Your task to perform on an android device: Go to eBay Image 0: 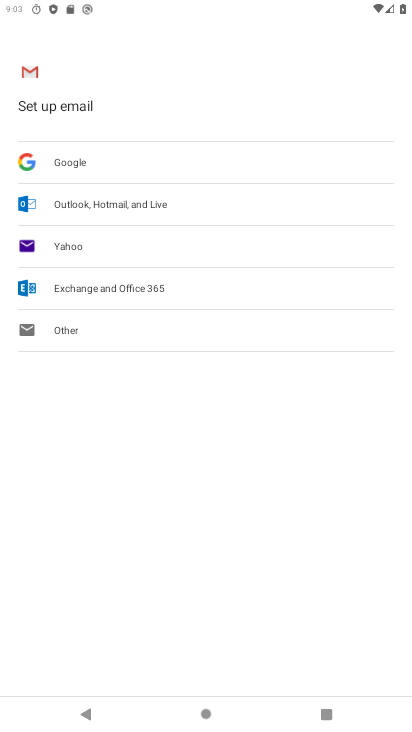
Step 0: press home button
Your task to perform on an android device: Go to eBay Image 1: 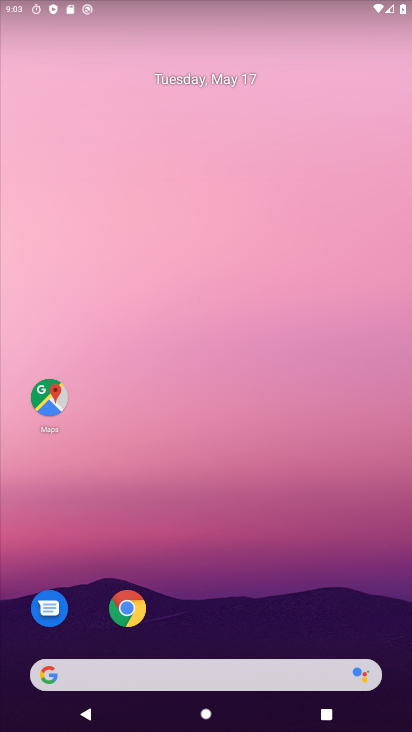
Step 1: drag from (308, 560) to (286, 124)
Your task to perform on an android device: Go to eBay Image 2: 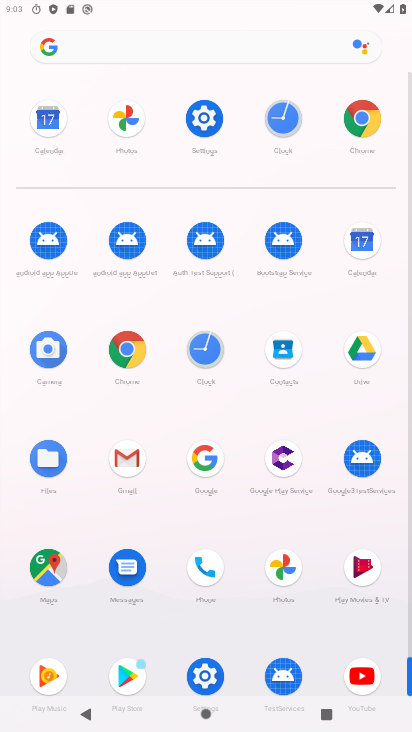
Step 2: click (118, 345)
Your task to perform on an android device: Go to eBay Image 3: 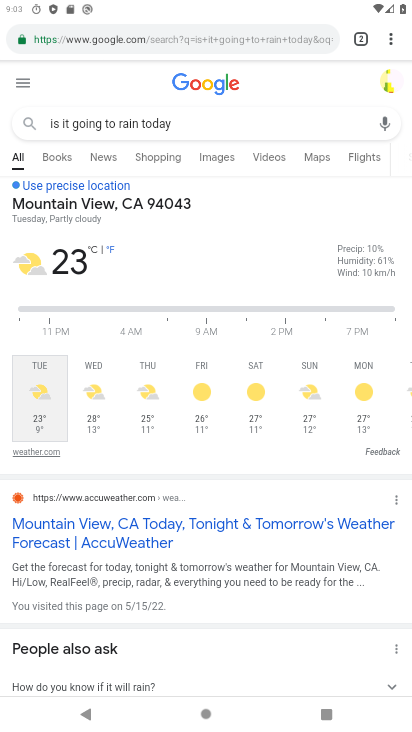
Step 3: click (156, 40)
Your task to perform on an android device: Go to eBay Image 4: 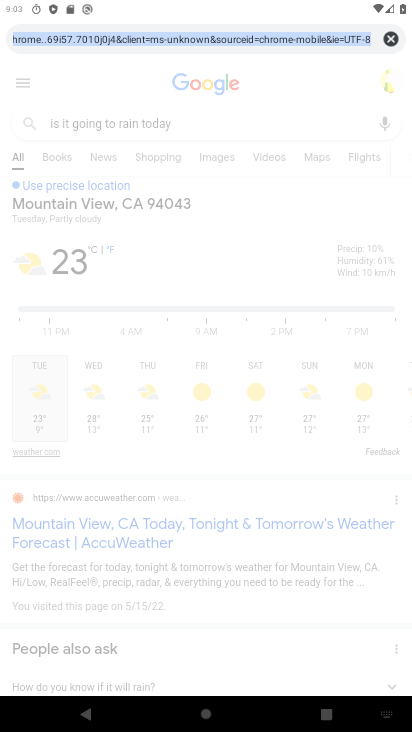
Step 4: click (394, 32)
Your task to perform on an android device: Go to eBay Image 5: 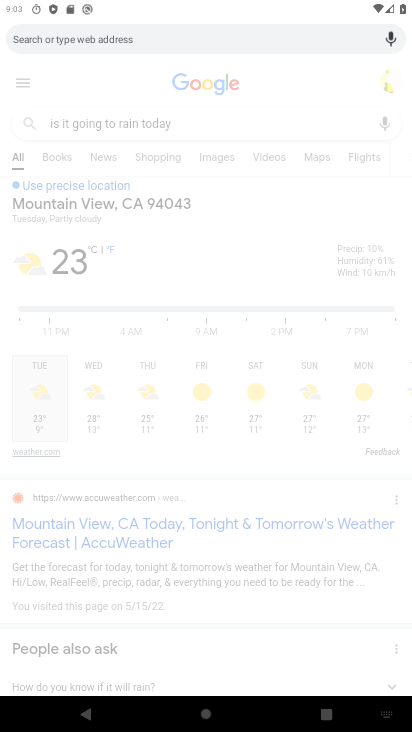
Step 5: type "ebay"
Your task to perform on an android device: Go to eBay Image 6: 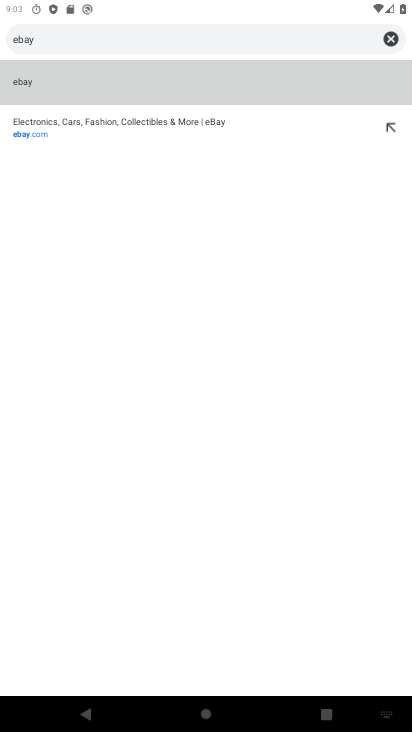
Step 6: click (27, 79)
Your task to perform on an android device: Go to eBay Image 7: 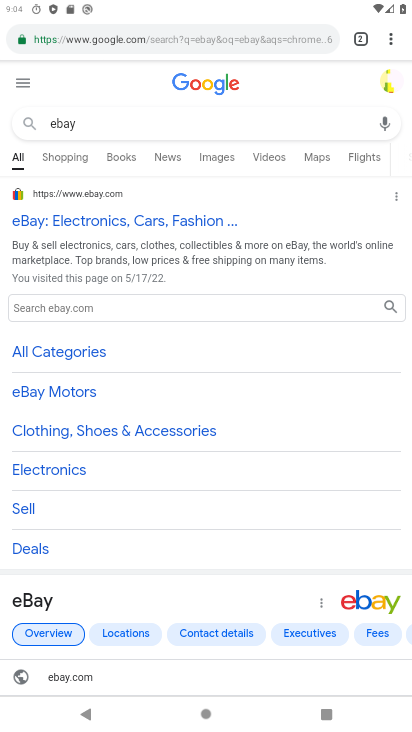
Step 7: click (83, 230)
Your task to perform on an android device: Go to eBay Image 8: 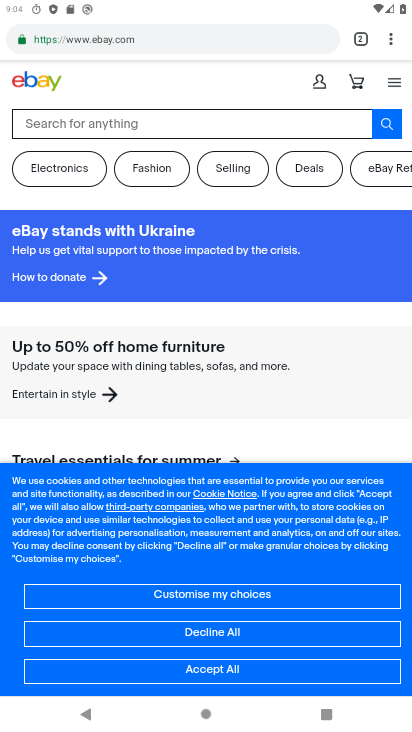
Step 8: task complete